Your task to perform on an android device: Search for usb-c to usb-a on newegg, select the first entry, add it to the cart, then select checkout. Image 0: 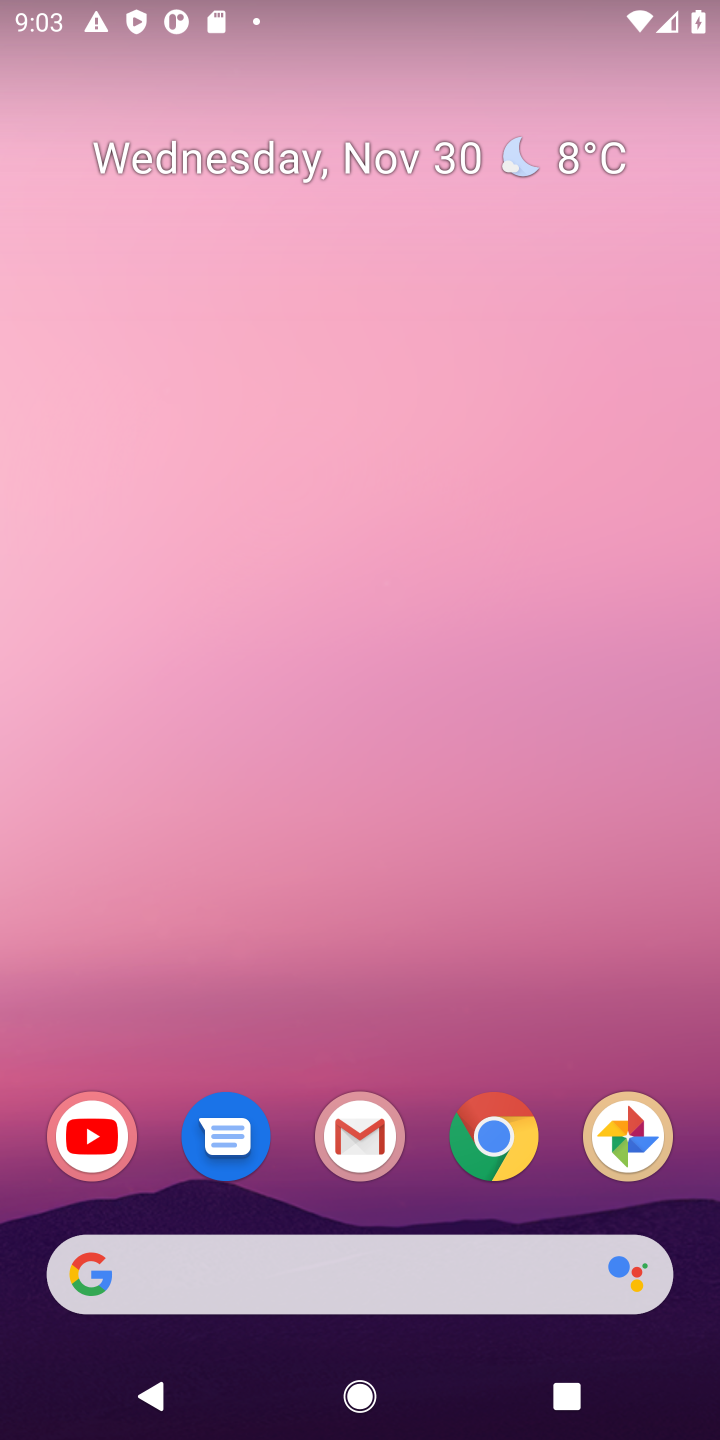
Step 0: click (503, 1137)
Your task to perform on an android device: Search for usb-c to usb-a on newegg, select the first entry, add it to the cart, then select checkout. Image 1: 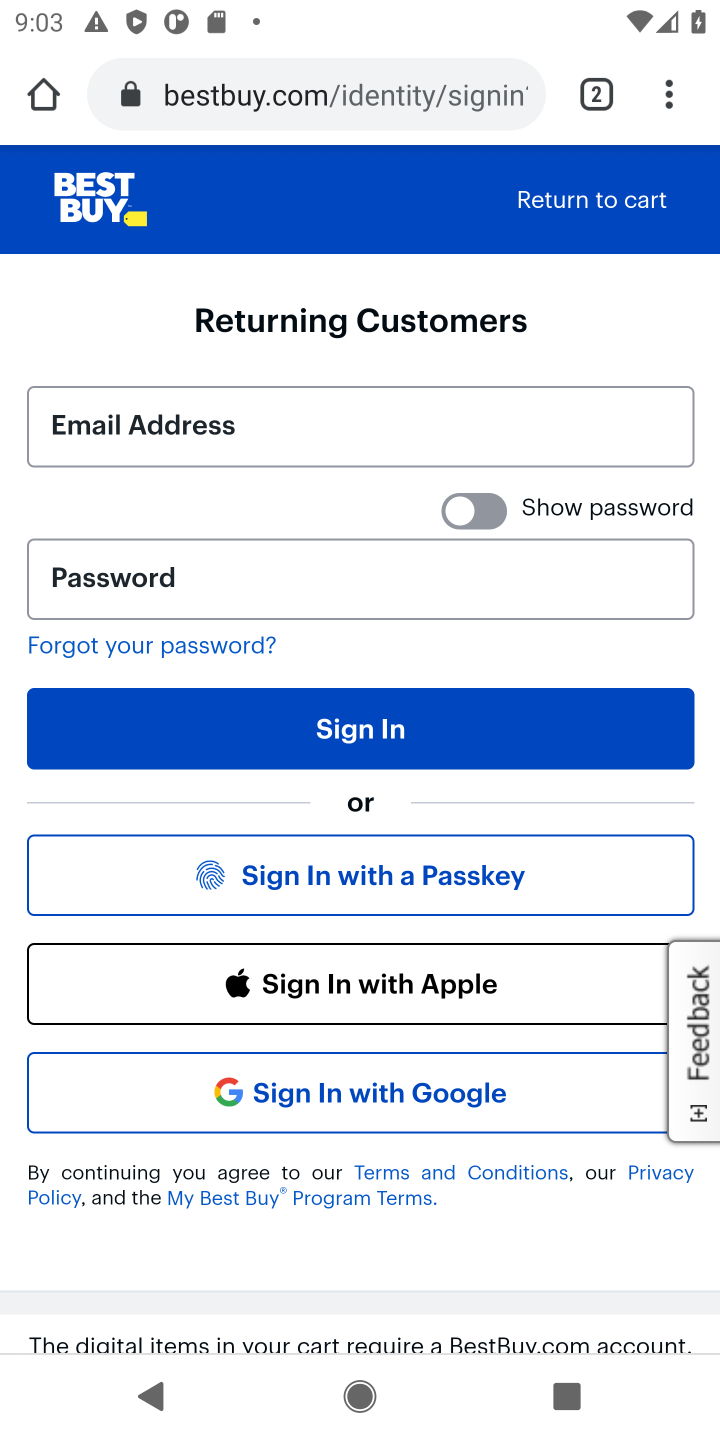
Step 1: click (263, 101)
Your task to perform on an android device: Search for usb-c to usb-a on newegg, select the first entry, add it to the cart, then select checkout. Image 2: 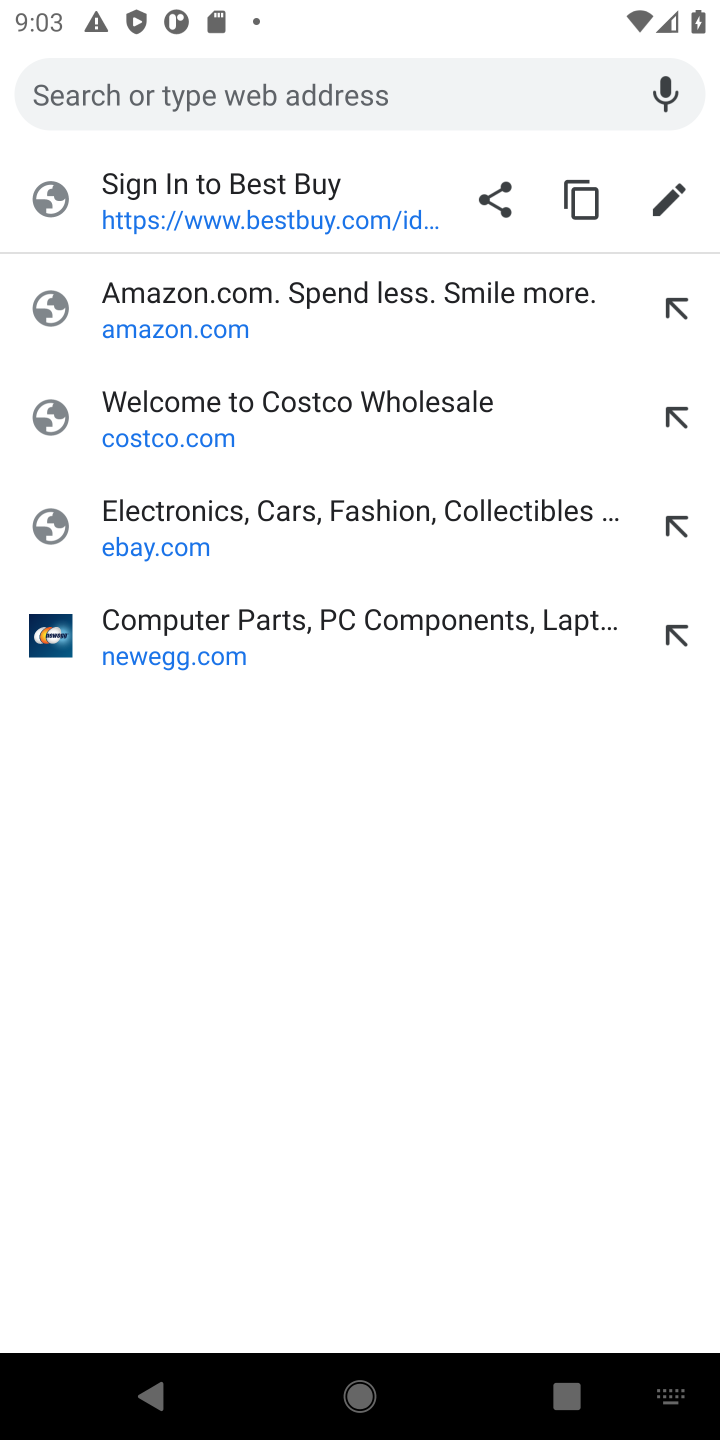
Step 2: click (133, 639)
Your task to perform on an android device: Search for usb-c to usb-a on newegg, select the first entry, add it to the cart, then select checkout. Image 3: 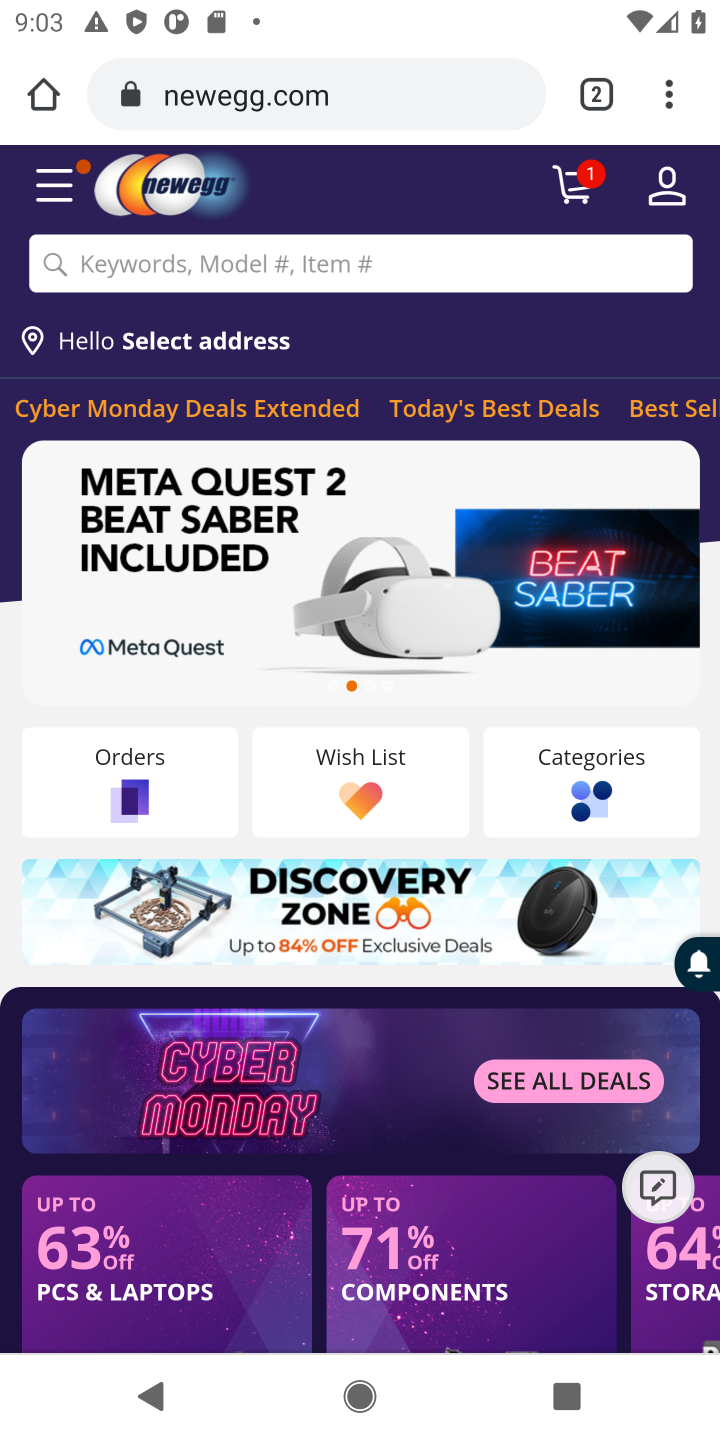
Step 3: click (229, 276)
Your task to perform on an android device: Search for usb-c to usb-a on newegg, select the first entry, add it to the cart, then select checkout. Image 4: 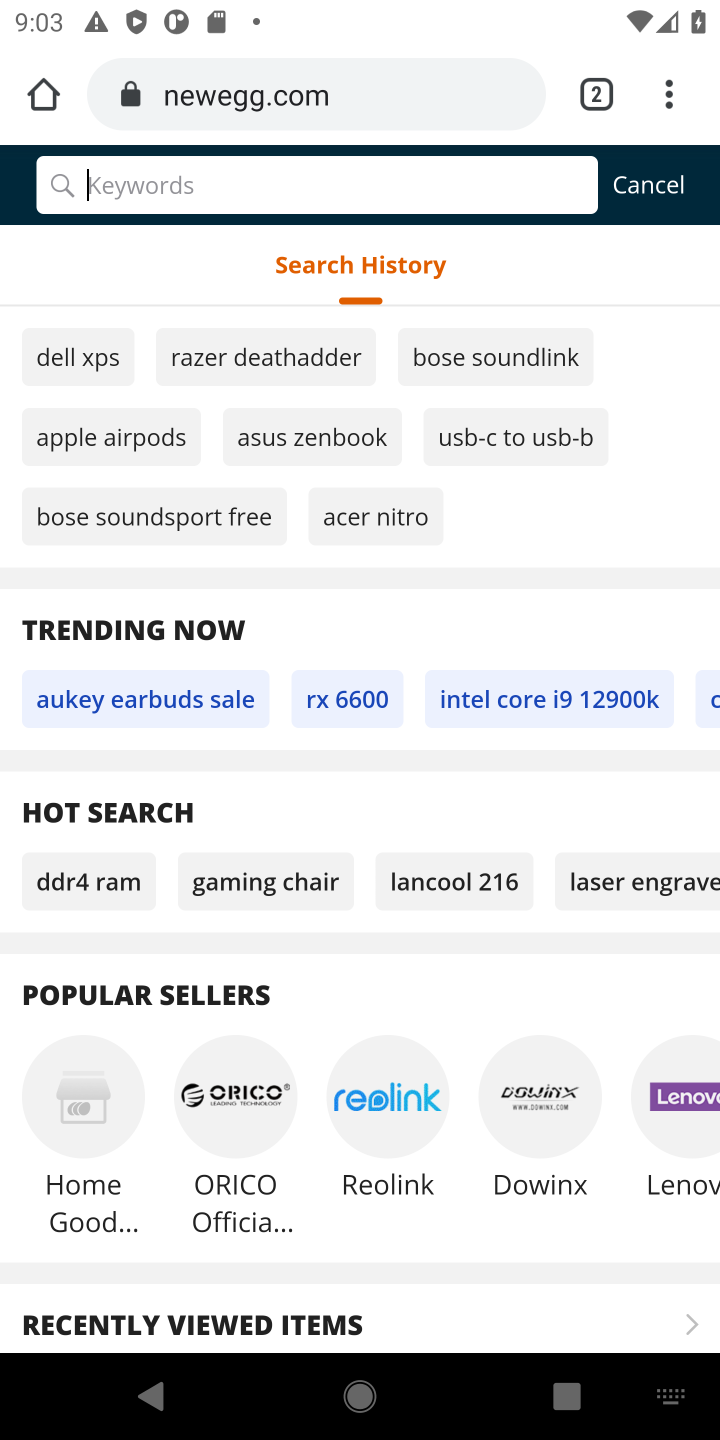
Step 4: type "usb-c to usb-a"
Your task to perform on an android device: Search for usb-c to usb-a on newegg, select the first entry, add it to the cart, then select checkout. Image 5: 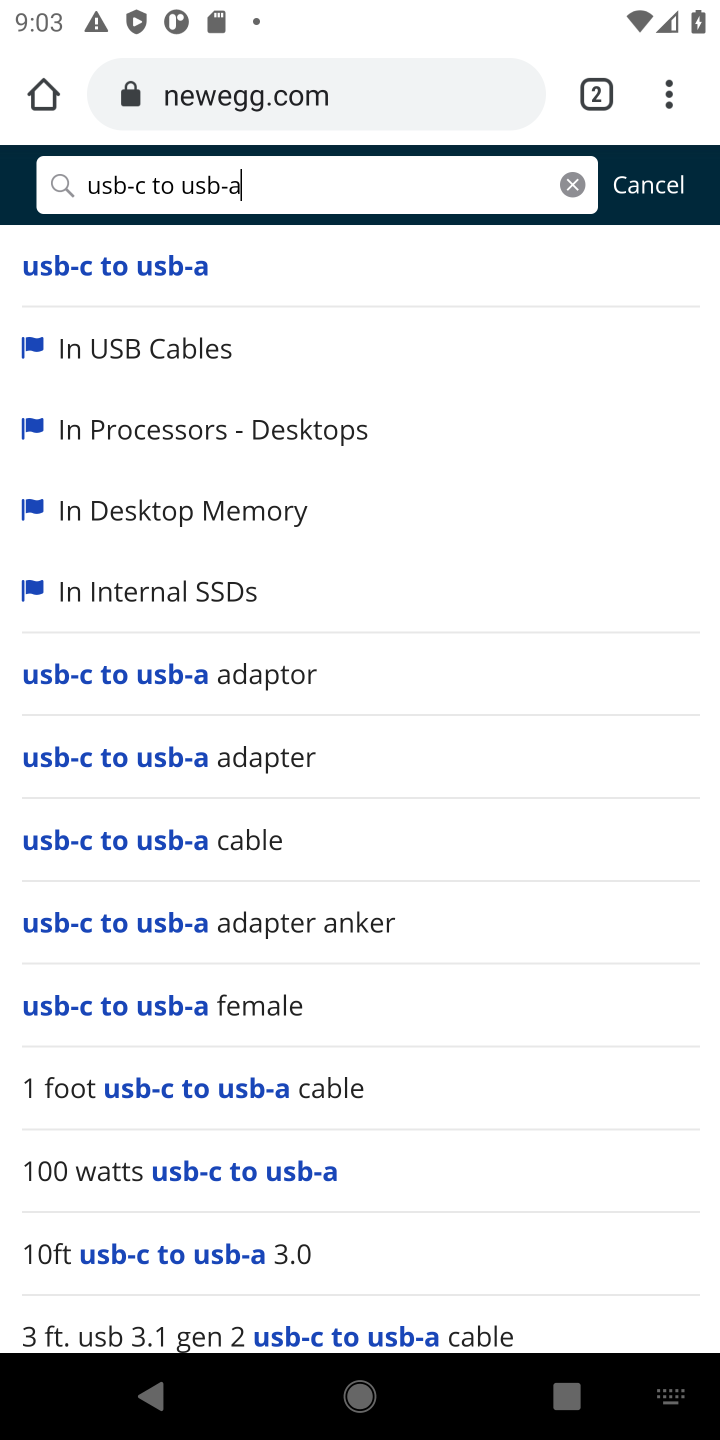
Step 5: click (112, 277)
Your task to perform on an android device: Search for usb-c to usb-a on newegg, select the first entry, add it to the cart, then select checkout. Image 6: 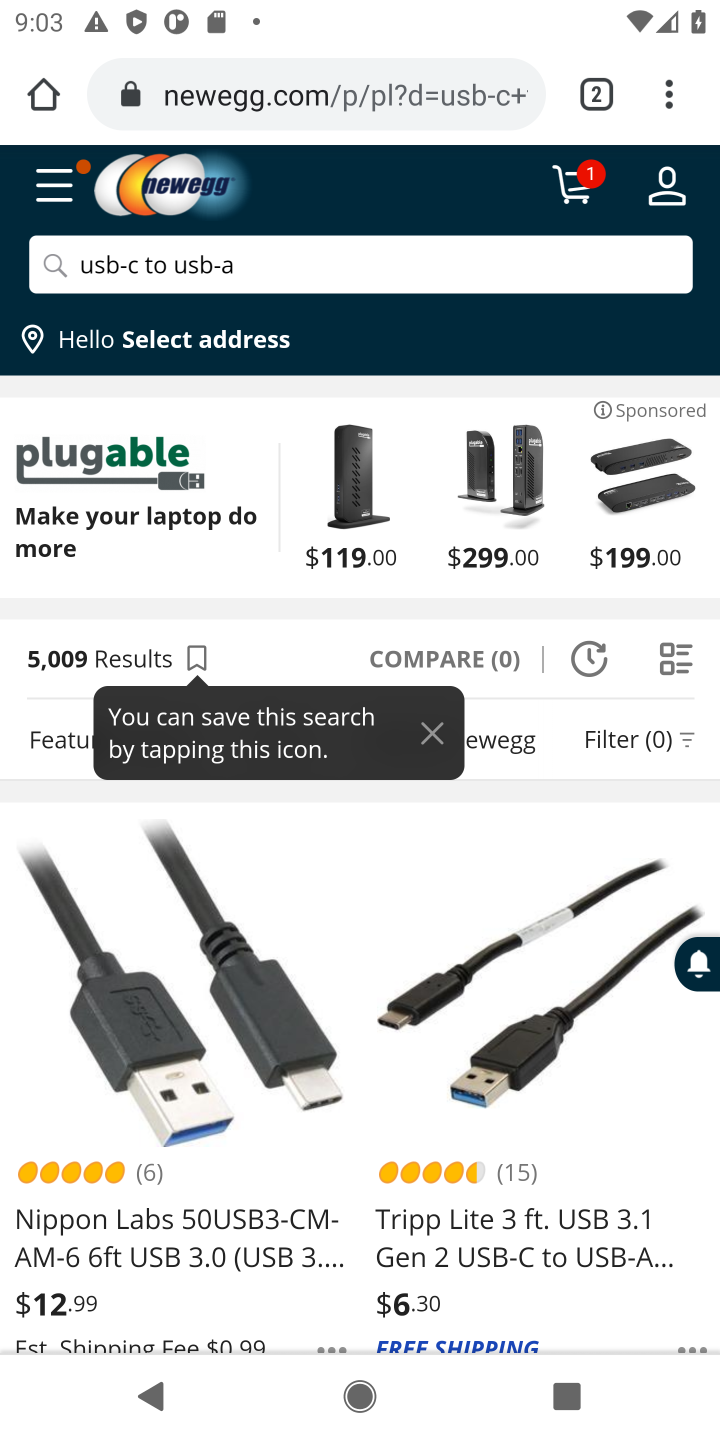
Step 6: drag from (165, 1225) to (169, 996)
Your task to perform on an android device: Search for usb-c to usb-a on newegg, select the first entry, add it to the cart, then select checkout. Image 7: 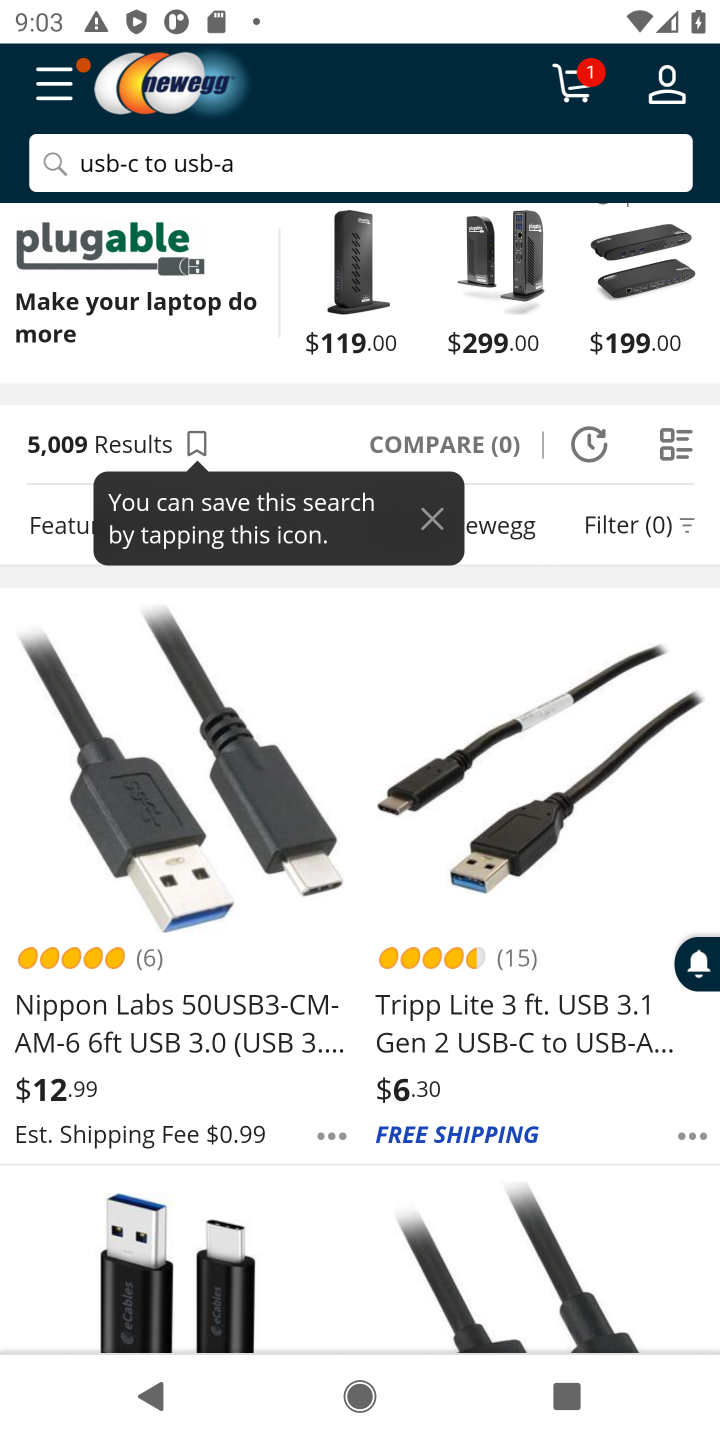
Step 7: click (139, 1009)
Your task to perform on an android device: Search for usb-c to usb-a on newegg, select the first entry, add it to the cart, then select checkout. Image 8: 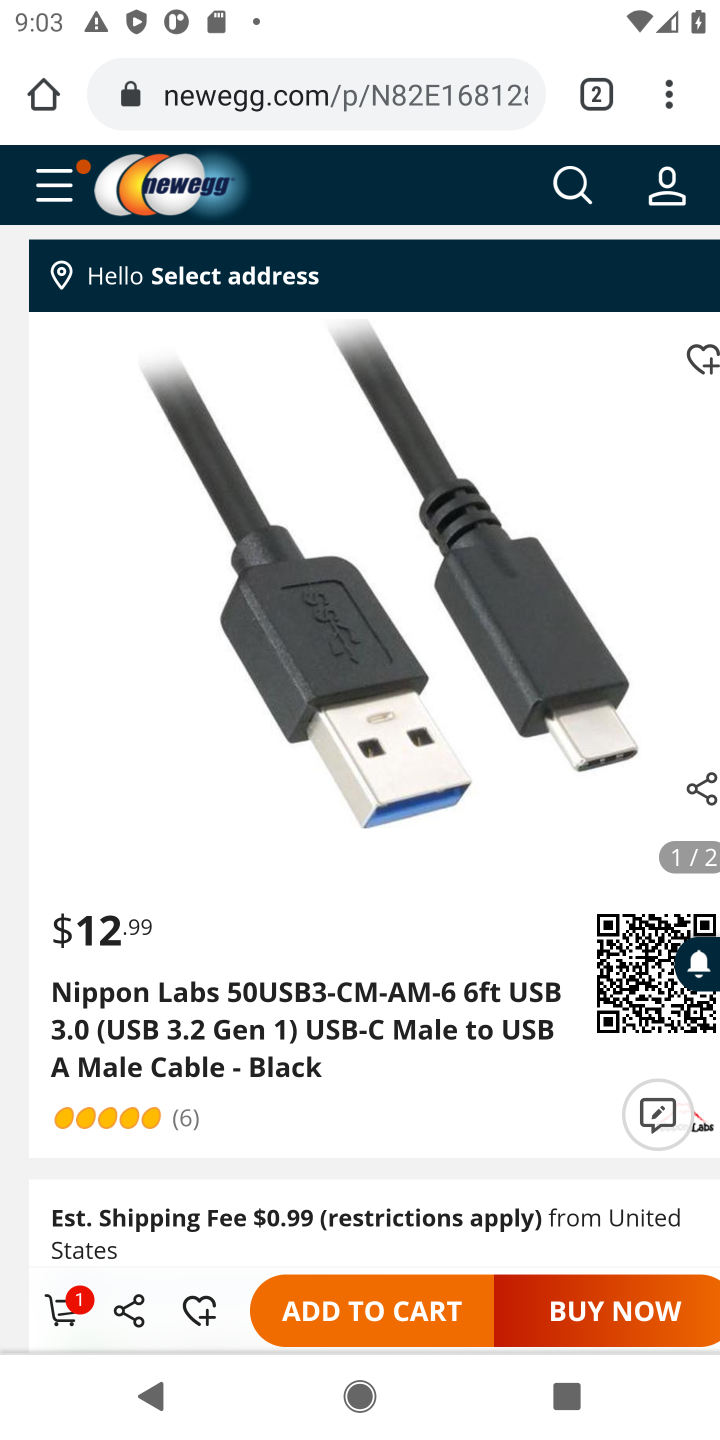
Step 8: click (353, 1311)
Your task to perform on an android device: Search for usb-c to usb-a on newegg, select the first entry, add it to the cart, then select checkout. Image 9: 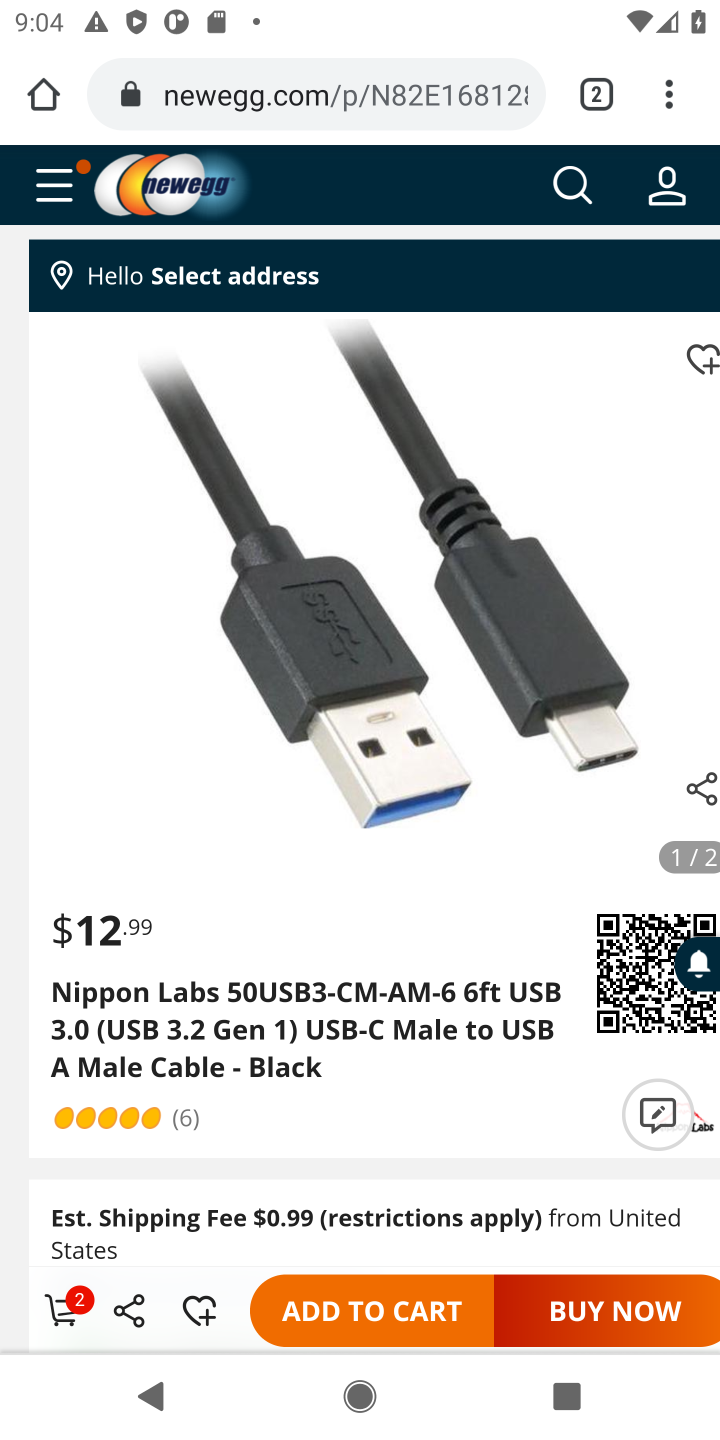
Step 9: click (71, 1320)
Your task to perform on an android device: Search for usb-c to usb-a on newegg, select the first entry, add it to the cart, then select checkout. Image 10: 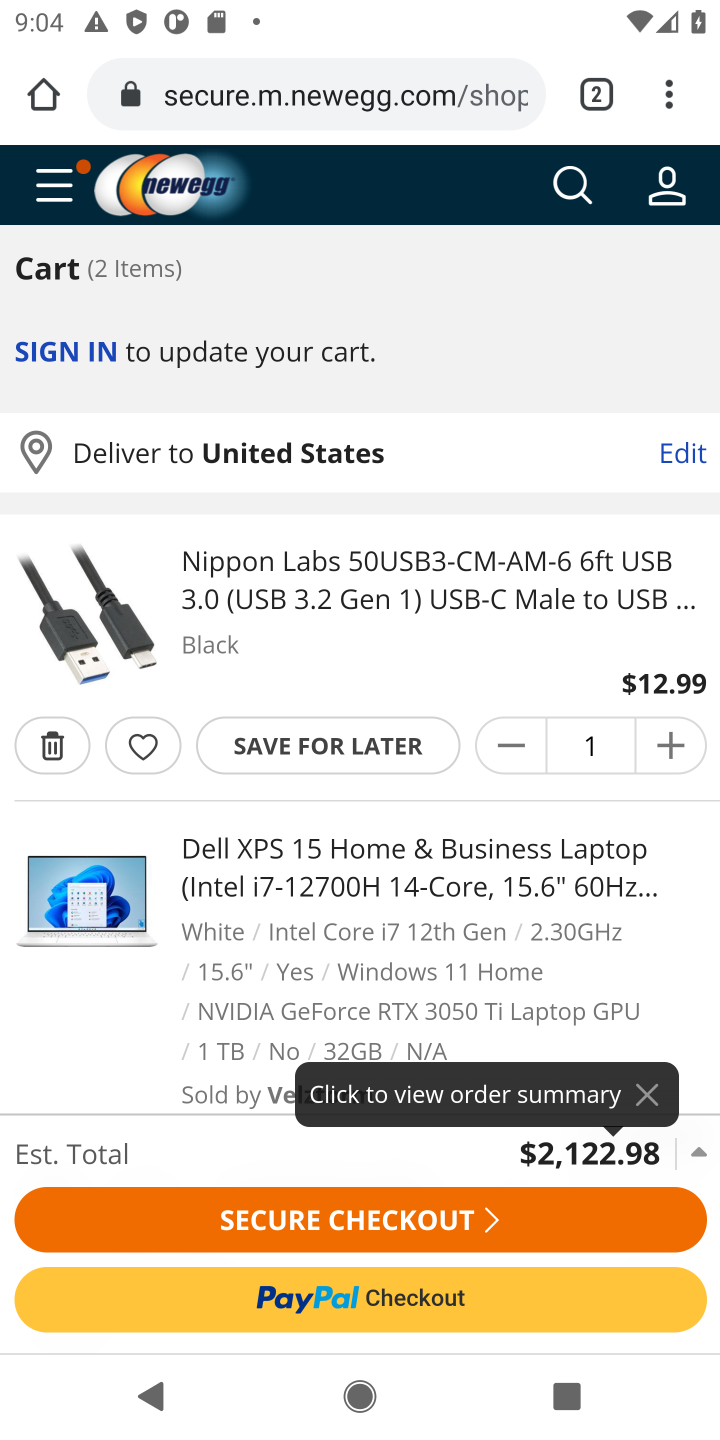
Step 10: click (300, 1211)
Your task to perform on an android device: Search for usb-c to usb-a on newegg, select the first entry, add it to the cart, then select checkout. Image 11: 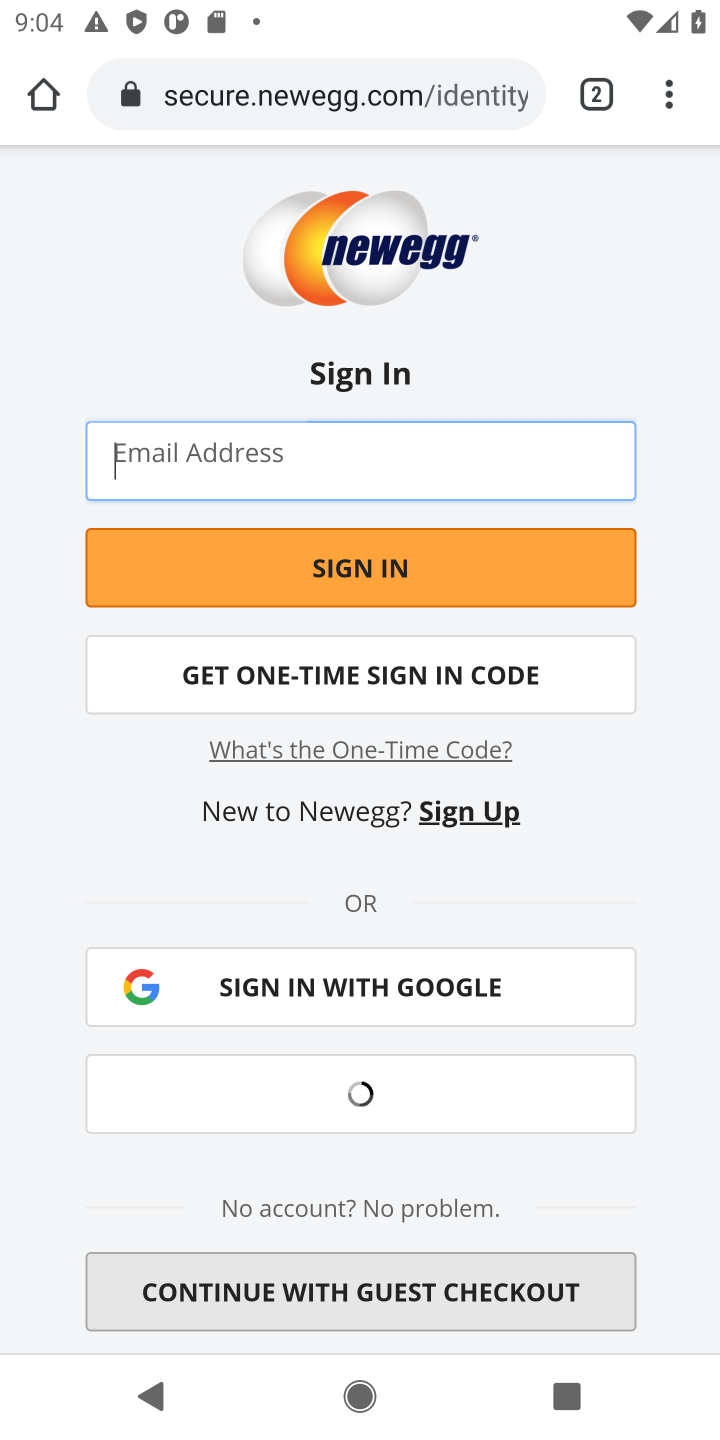
Step 11: task complete